Your task to perform on an android device: toggle airplane mode Image 0: 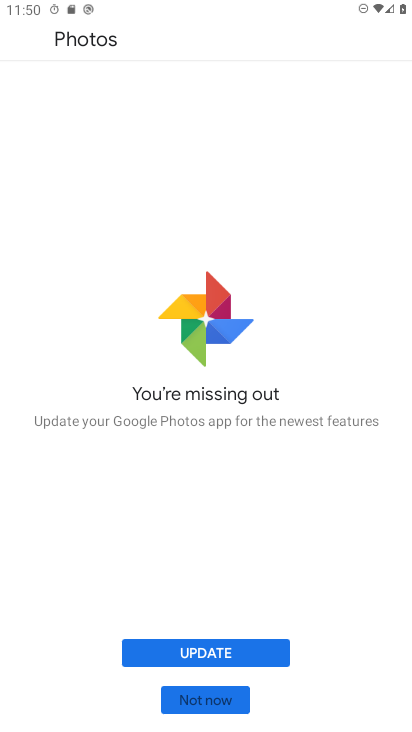
Step 0: press home button
Your task to perform on an android device: toggle airplane mode Image 1: 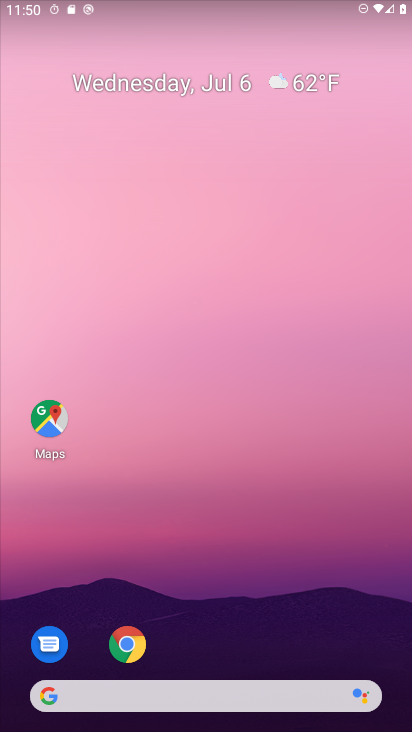
Step 1: drag from (229, 0) to (191, 726)
Your task to perform on an android device: toggle airplane mode Image 2: 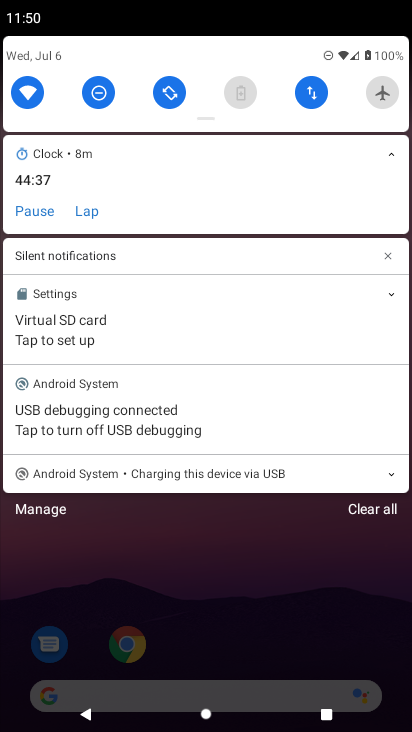
Step 2: click (389, 93)
Your task to perform on an android device: toggle airplane mode Image 3: 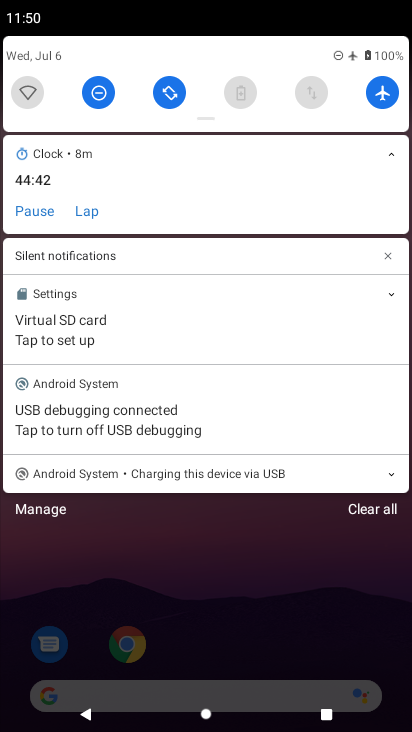
Step 3: task complete